Your task to perform on an android device: stop showing notifications on the lock screen Image 0: 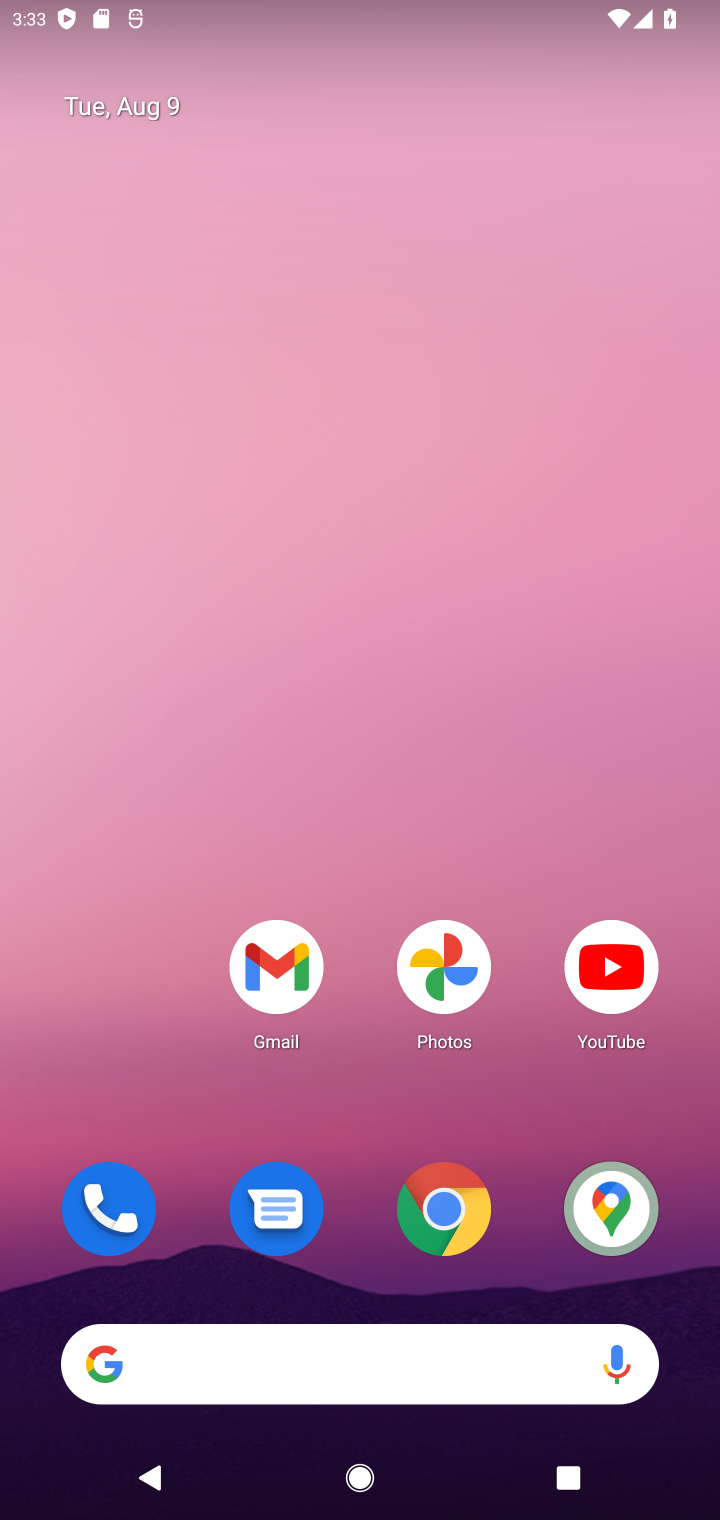
Step 0: drag from (384, 1172) to (405, 131)
Your task to perform on an android device: stop showing notifications on the lock screen Image 1: 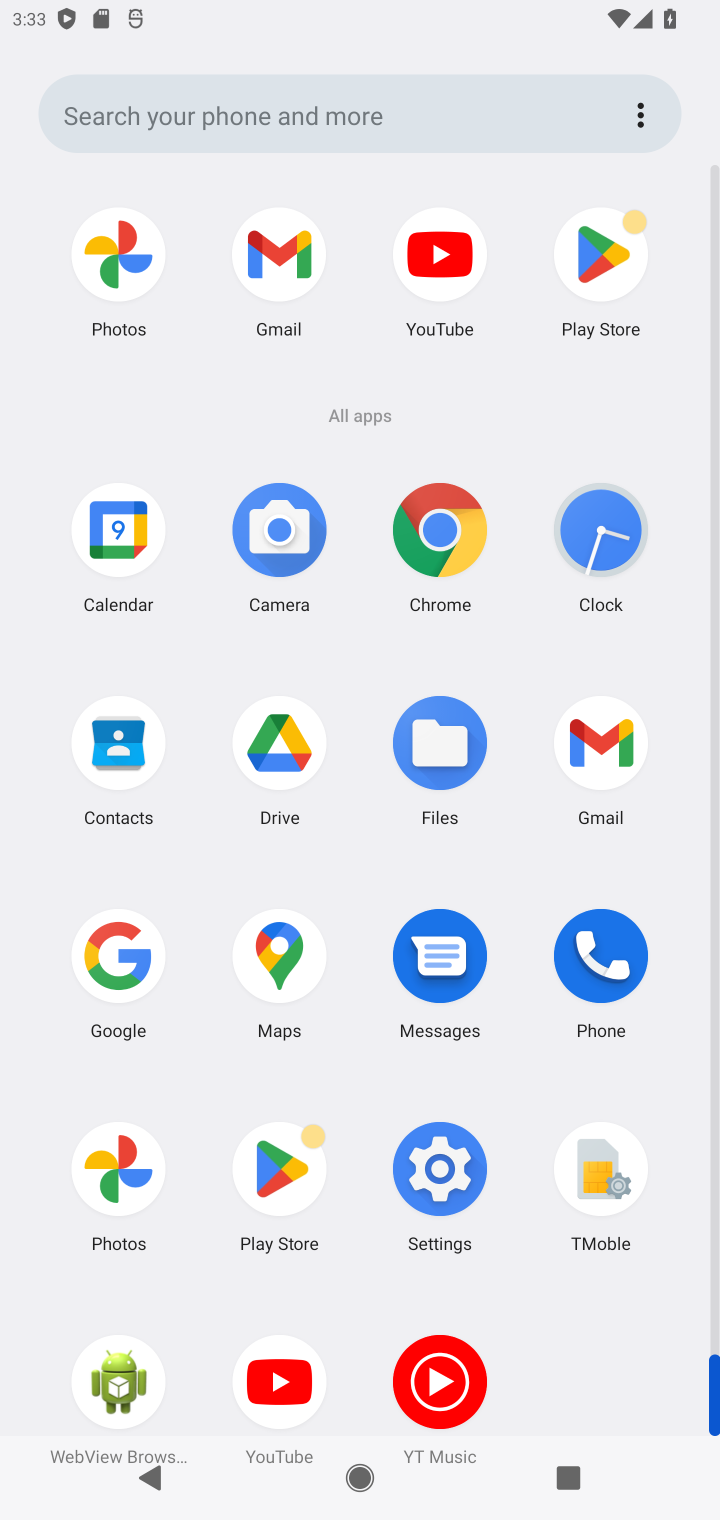
Step 1: click (443, 1182)
Your task to perform on an android device: stop showing notifications on the lock screen Image 2: 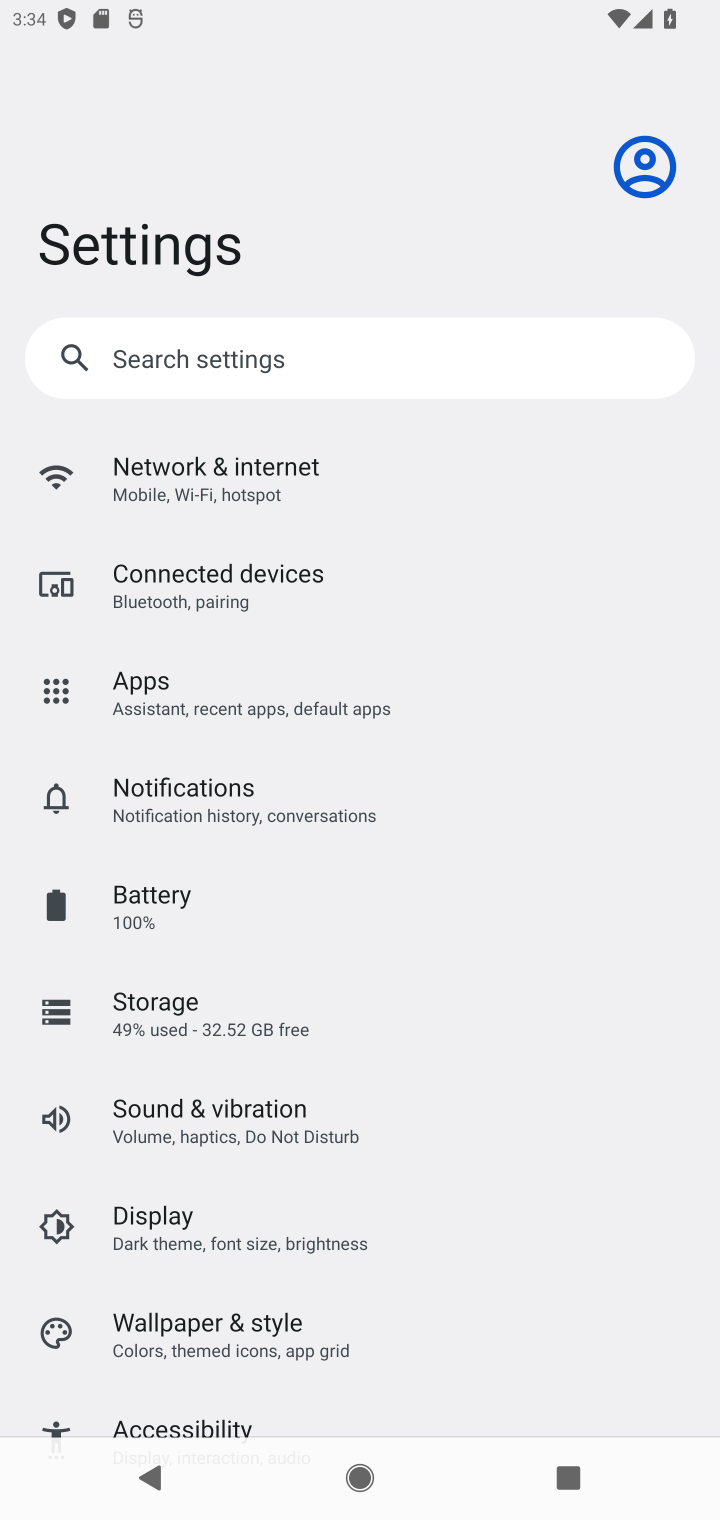
Step 2: drag from (212, 1244) to (212, 1124)
Your task to perform on an android device: stop showing notifications on the lock screen Image 3: 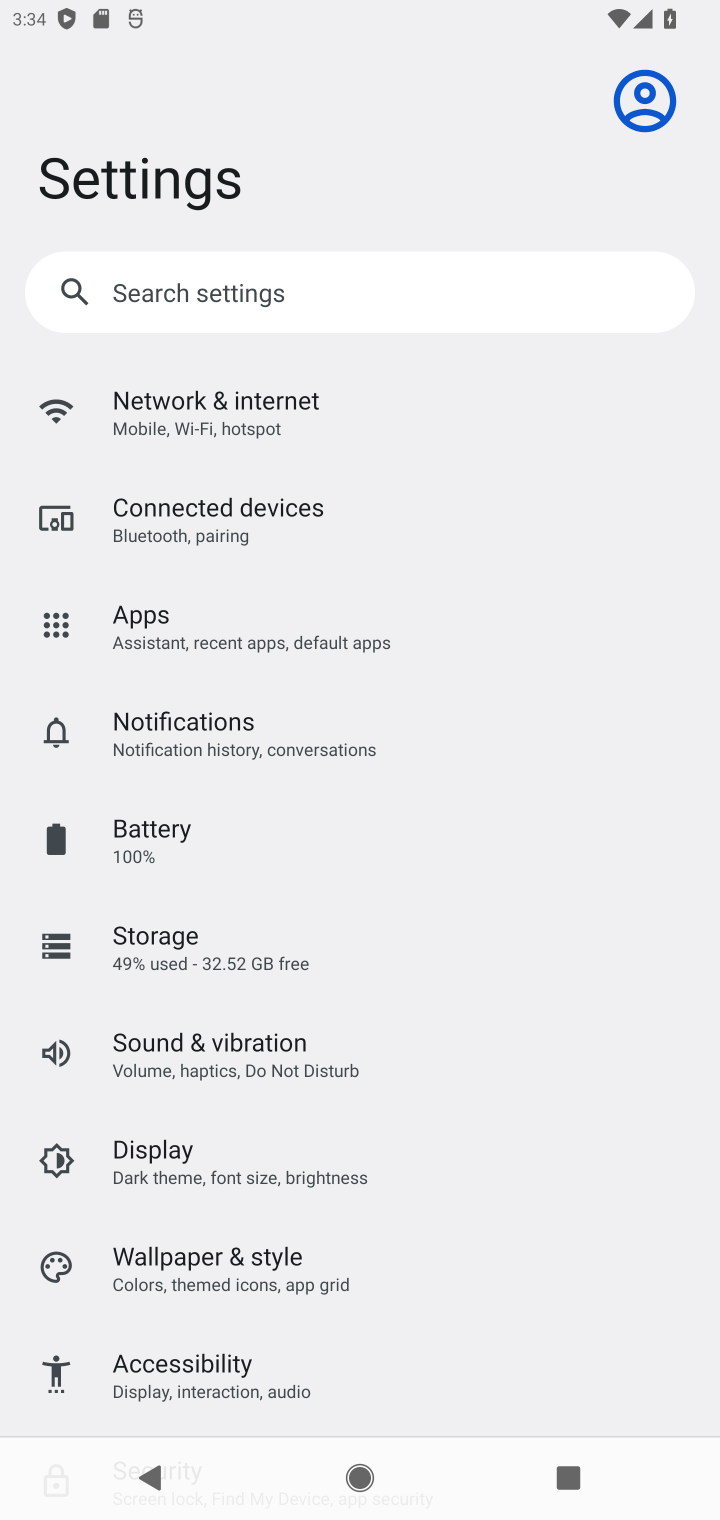
Step 3: click (191, 729)
Your task to perform on an android device: stop showing notifications on the lock screen Image 4: 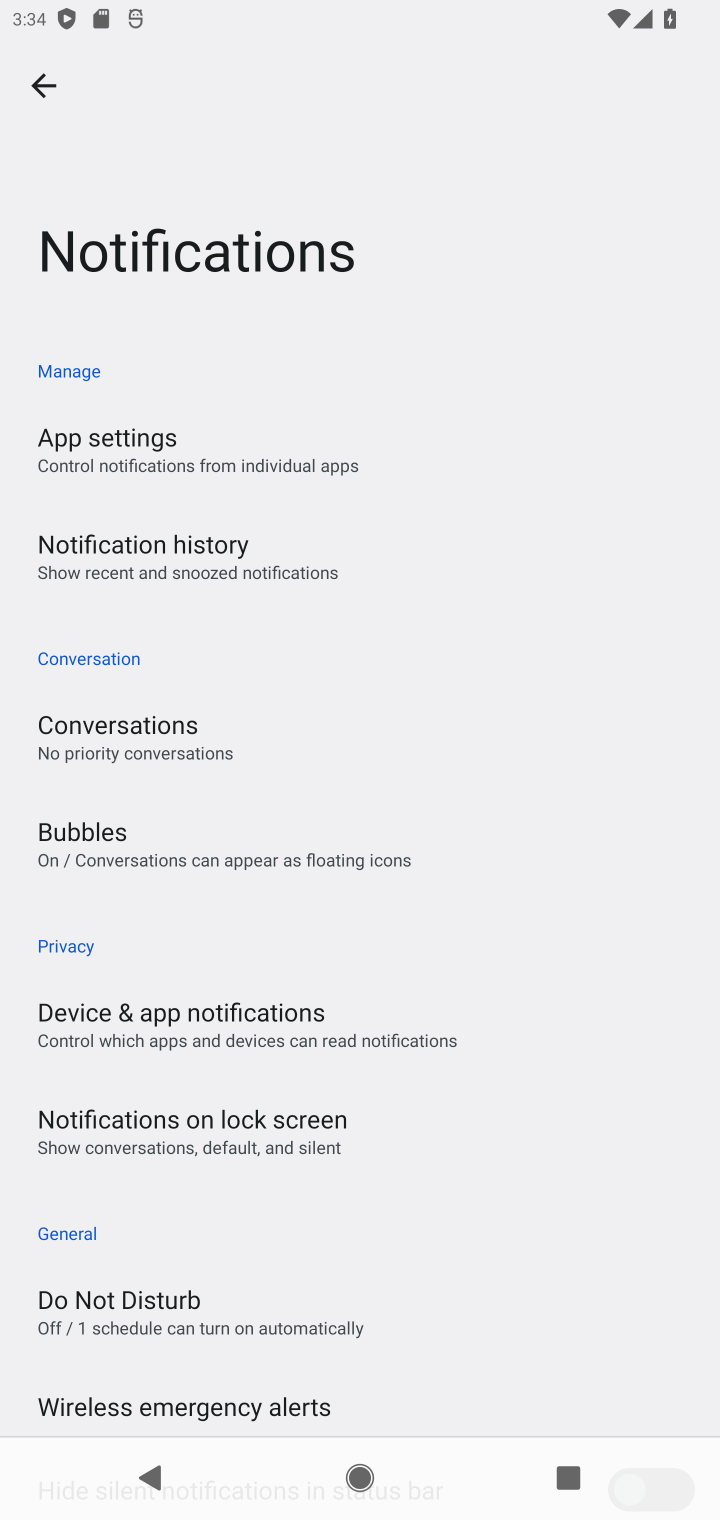
Step 4: click (193, 1137)
Your task to perform on an android device: stop showing notifications on the lock screen Image 5: 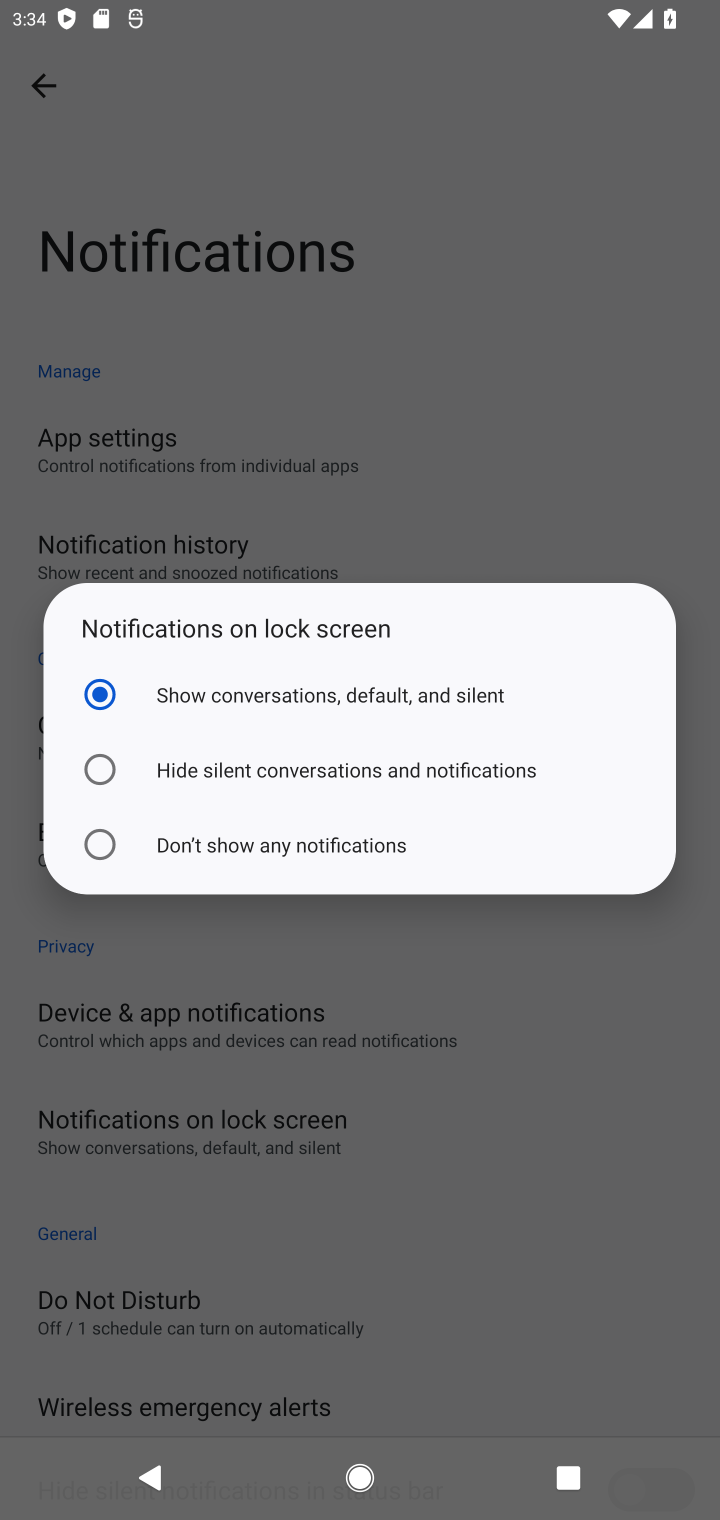
Step 5: click (90, 839)
Your task to perform on an android device: stop showing notifications on the lock screen Image 6: 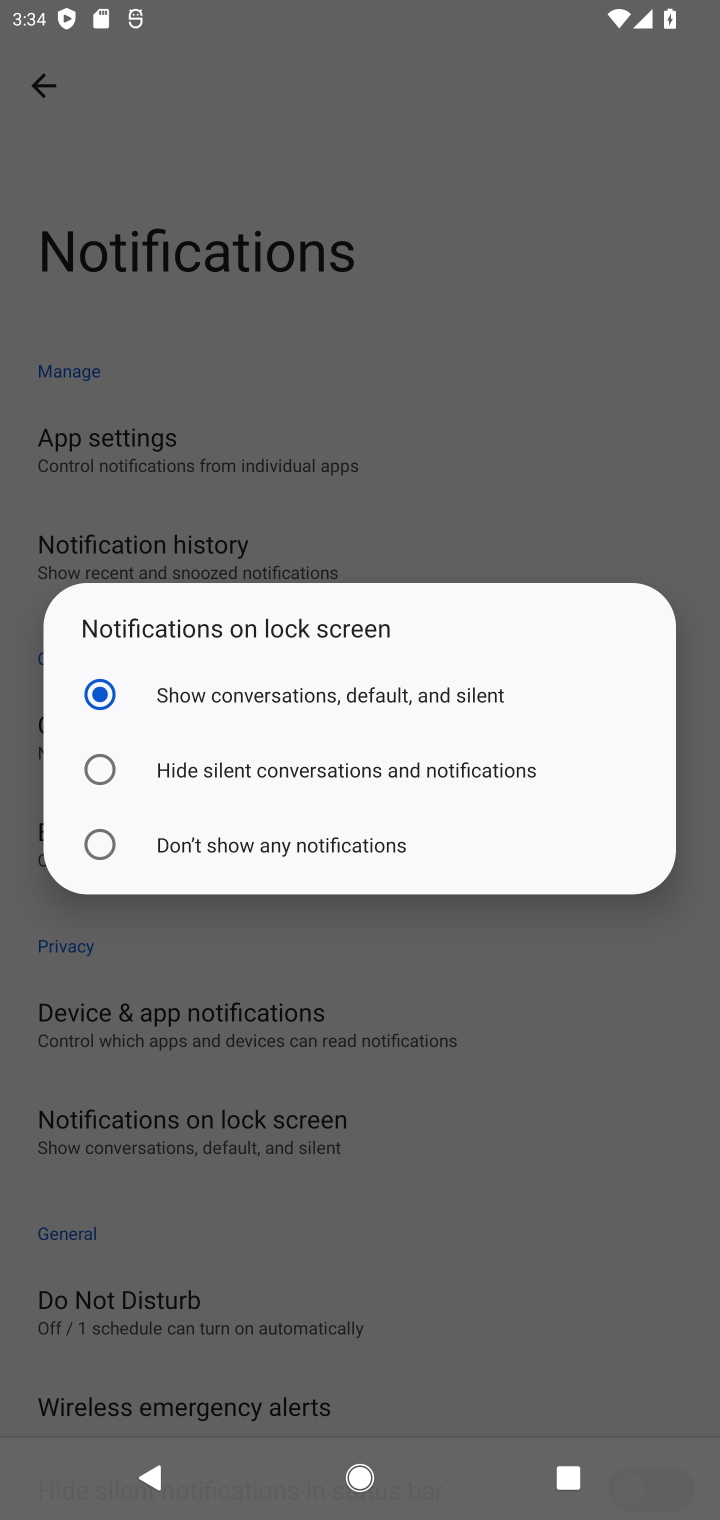
Step 6: click (90, 839)
Your task to perform on an android device: stop showing notifications on the lock screen Image 7: 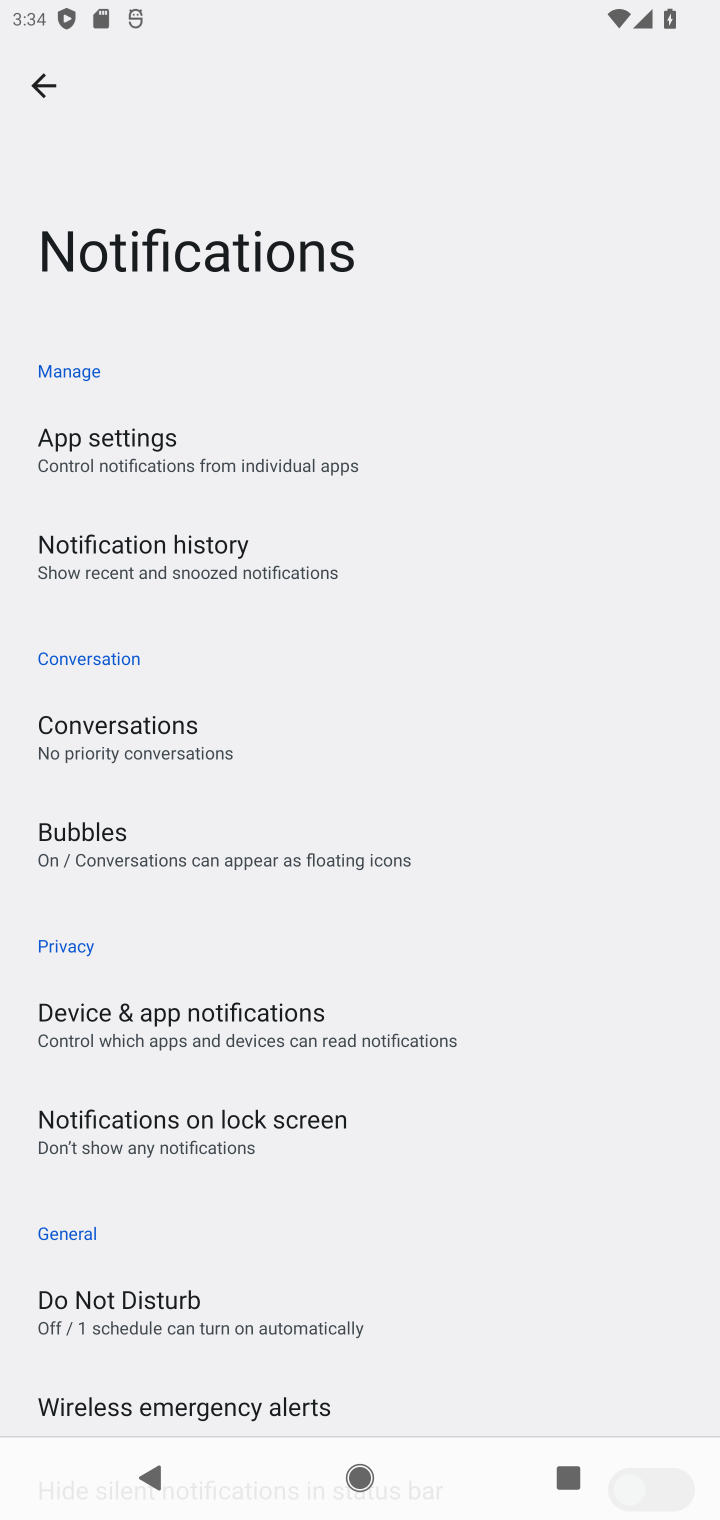
Step 7: task complete